Your task to perform on an android device: When is my next appointment? Image 0: 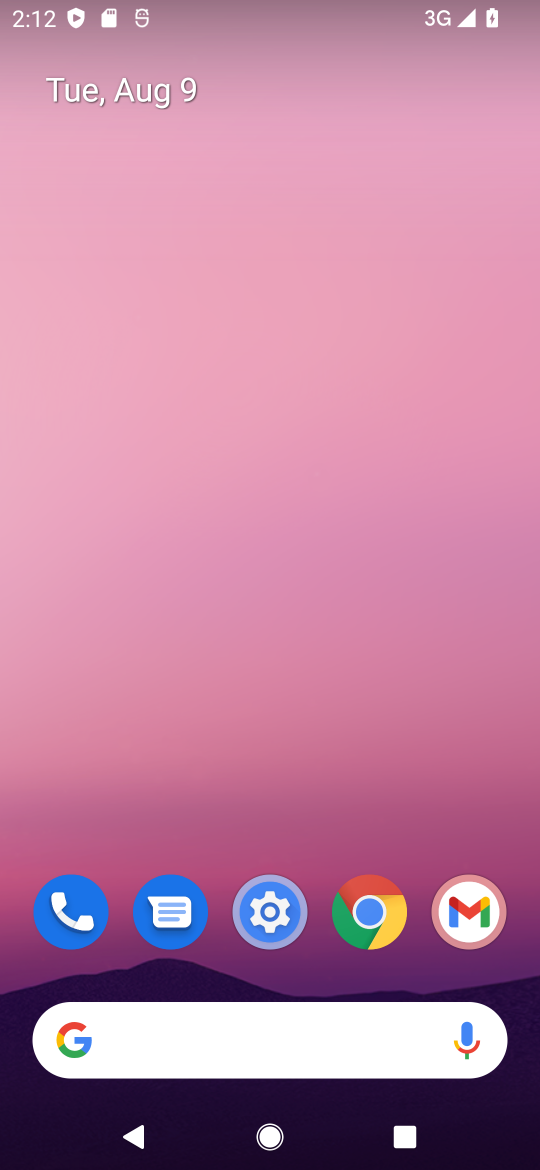
Step 0: drag from (302, 823) to (237, 101)
Your task to perform on an android device: When is my next appointment? Image 1: 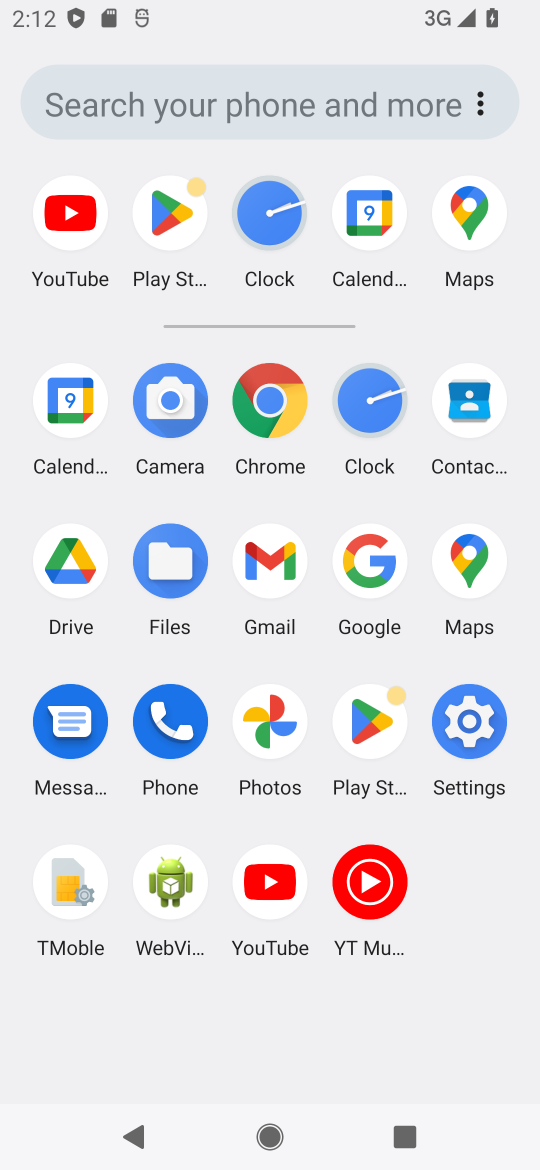
Step 1: click (363, 205)
Your task to perform on an android device: When is my next appointment? Image 2: 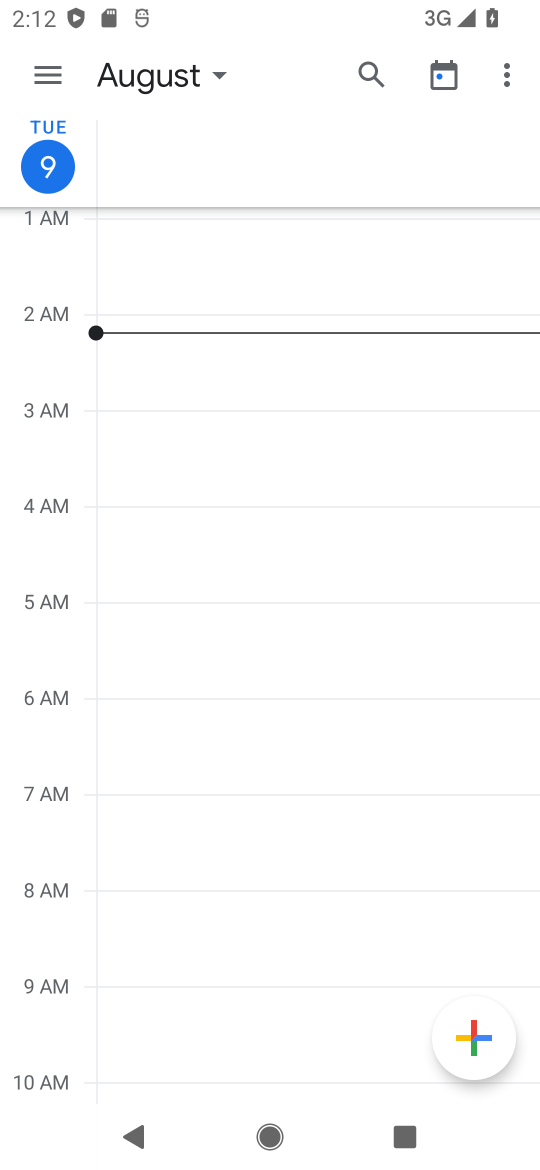
Step 2: task complete